Your task to perform on an android device: Open Youtube and go to the subscriptions tab Image 0: 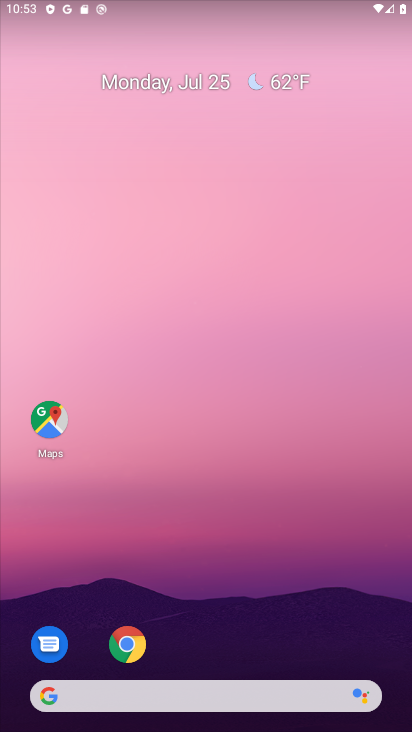
Step 0: drag from (209, 651) to (211, 176)
Your task to perform on an android device: Open Youtube and go to the subscriptions tab Image 1: 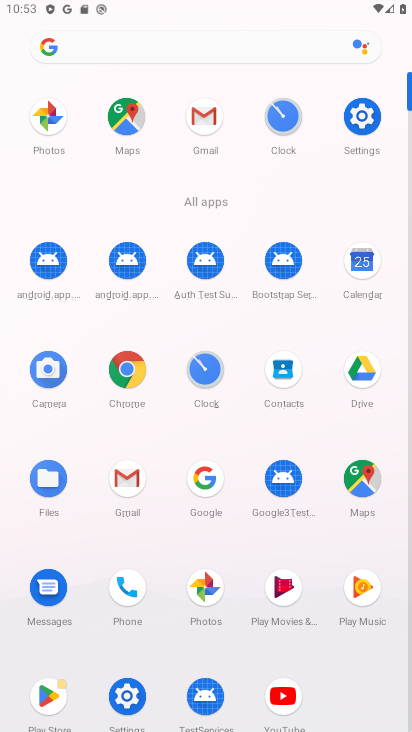
Step 1: click (280, 702)
Your task to perform on an android device: Open Youtube and go to the subscriptions tab Image 2: 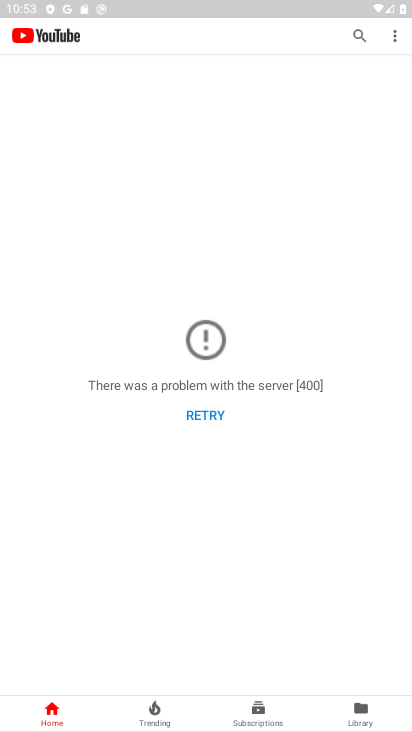
Step 2: click (251, 717)
Your task to perform on an android device: Open Youtube and go to the subscriptions tab Image 3: 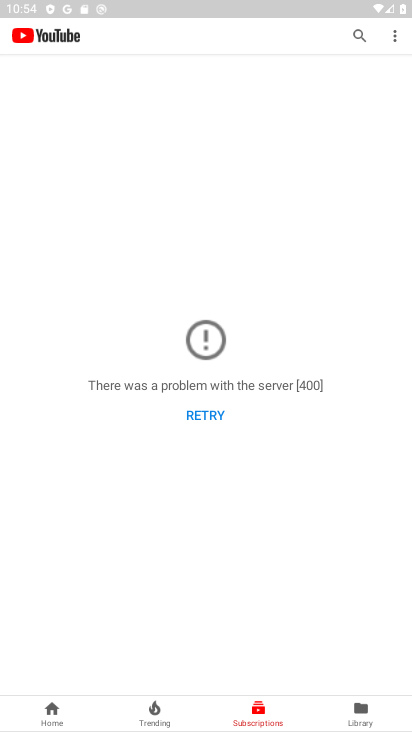
Step 3: task complete